Your task to perform on an android device: What's the latest technology news? Image 0: 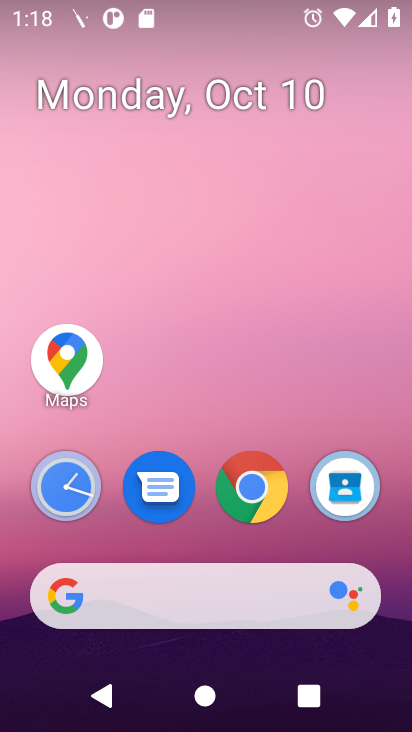
Step 0: click (252, 489)
Your task to perform on an android device: What's the latest technology news? Image 1: 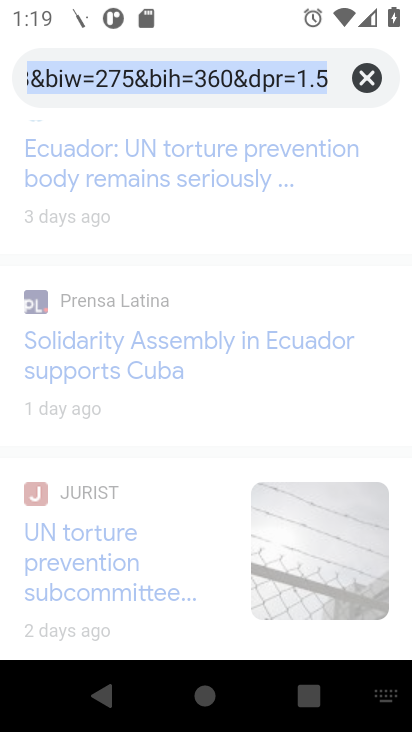
Step 1: type "latest technology news"
Your task to perform on an android device: What's the latest technology news? Image 2: 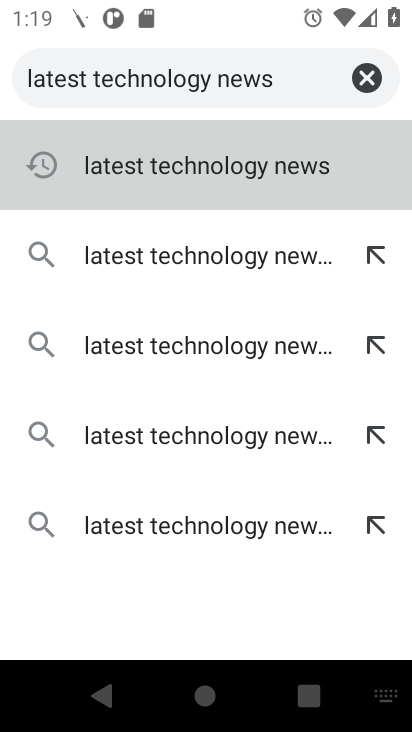
Step 2: press enter
Your task to perform on an android device: What's the latest technology news? Image 3: 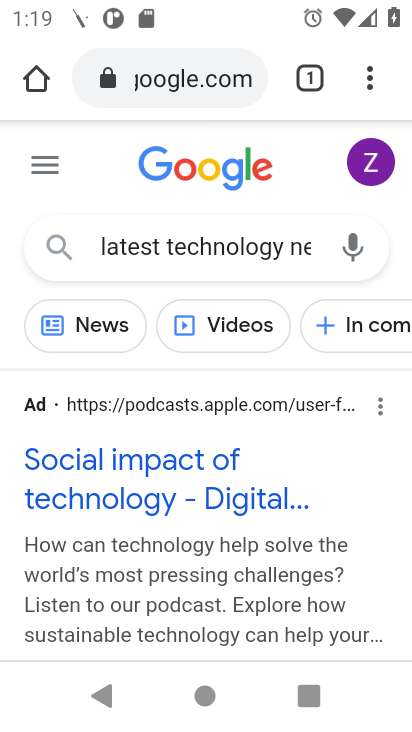
Step 3: drag from (199, 565) to (206, 515)
Your task to perform on an android device: What's the latest technology news? Image 4: 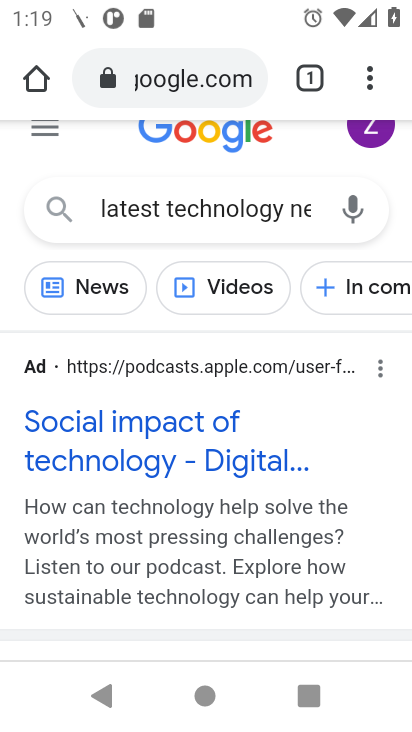
Step 4: click (114, 304)
Your task to perform on an android device: What's the latest technology news? Image 5: 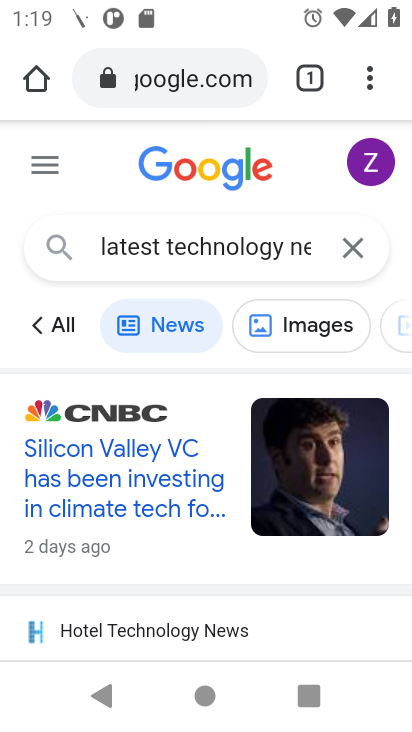
Step 5: task complete